Your task to perform on an android device: Go to wifi settings Image 0: 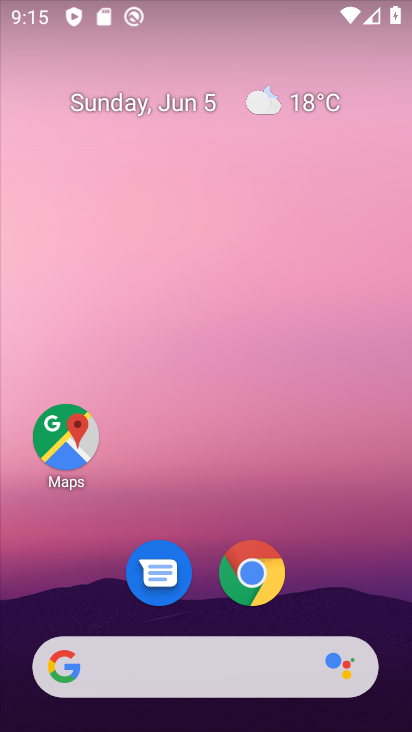
Step 0: drag from (213, 730) to (146, 44)
Your task to perform on an android device: Go to wifi settings Image 1: 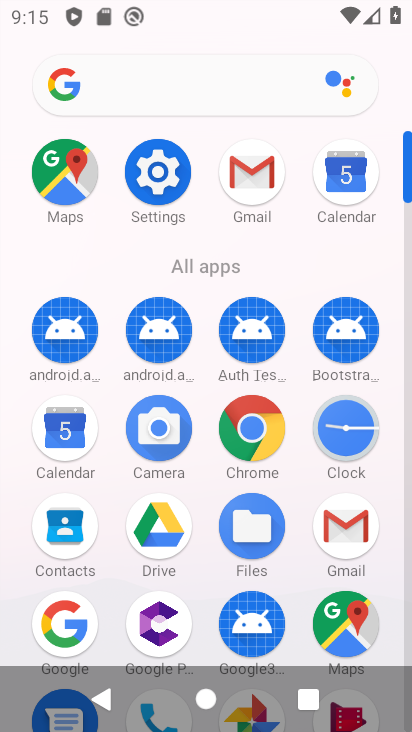
Step 1: click (175, 175)
Your task to perform on an android device: Go to wifi settings Image 2: 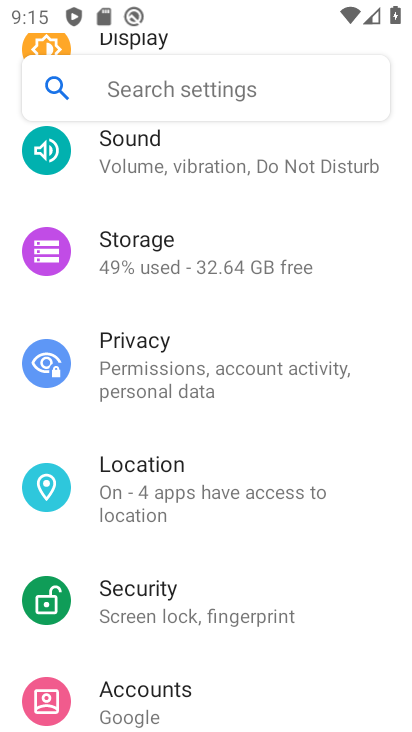
Step 2: drag from (266, 192) to (283, 558)
Your task to perform on an android device: Go to wifi settings Image 3: 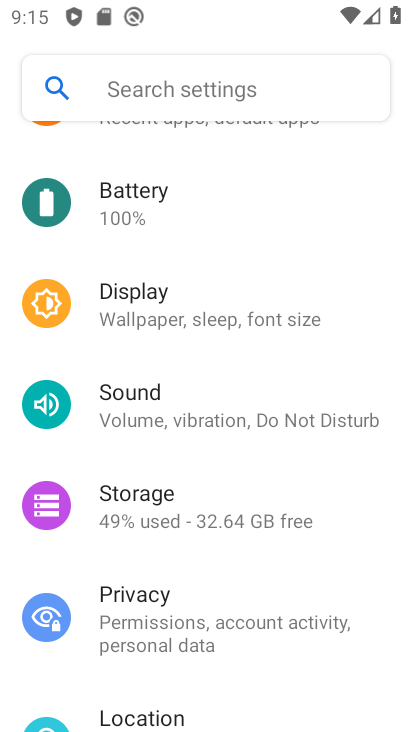
Step 3: drag from (324, 147) to (334, 585)
Your task to perform on an android device: Go to wifi settings Image 4: 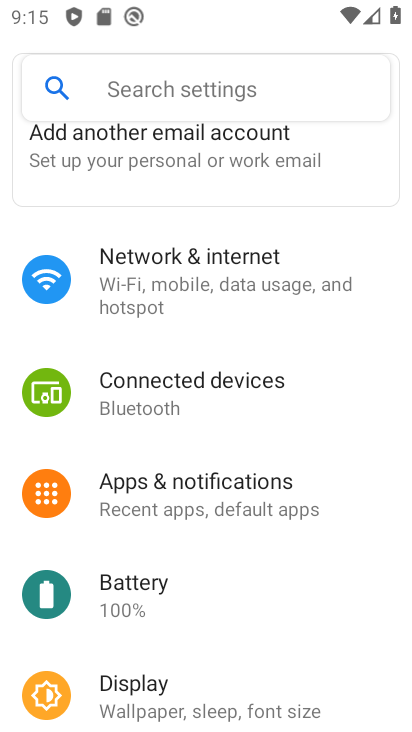
Step 4: click (172, 281)
Your task to perform on an android device: Go to wifi settings Image 5: 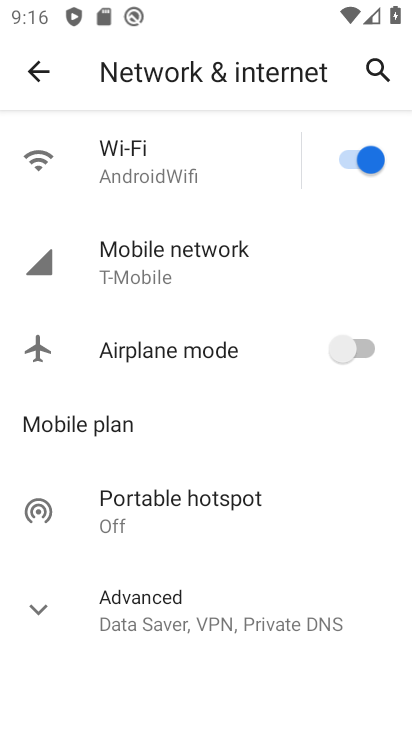
Step 5: click (123, 162)
Your task to perform on an android device: Go to wifi settings Image 6: 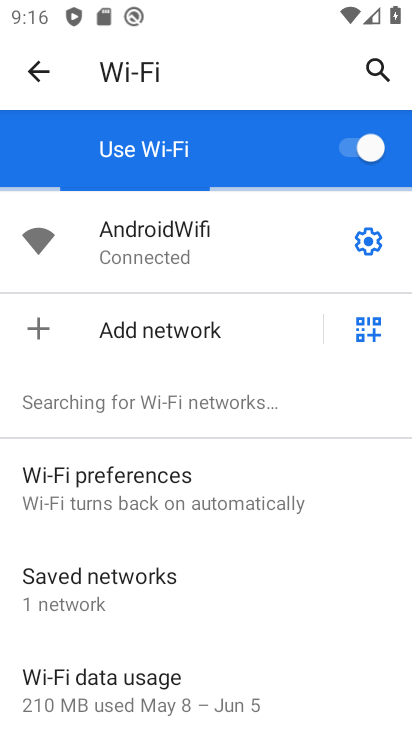
Step 6: task complete